Your task to perform on an android device: What's the weather going to be this weekend? Image 0: 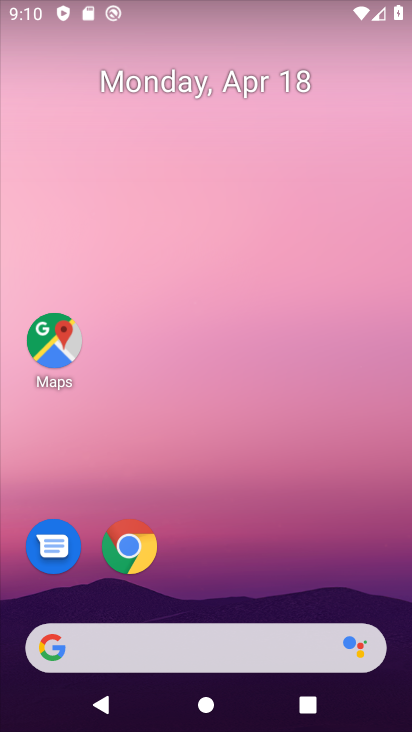
Step 0: drag from (26, 188) to (411, 209)
Your task to perform on an android device: What's the weather going to be this weekend? Image 1: 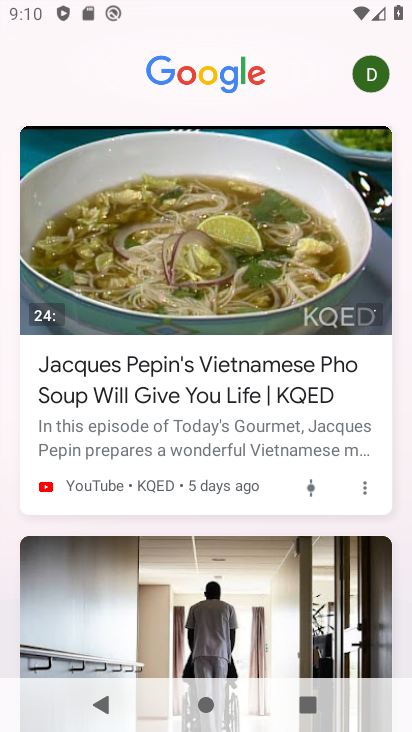
Step 1: drag from (400, 446) to (10, 452)
Your task to perform on an android device: What's the weather going to be this weekend? Image 2: 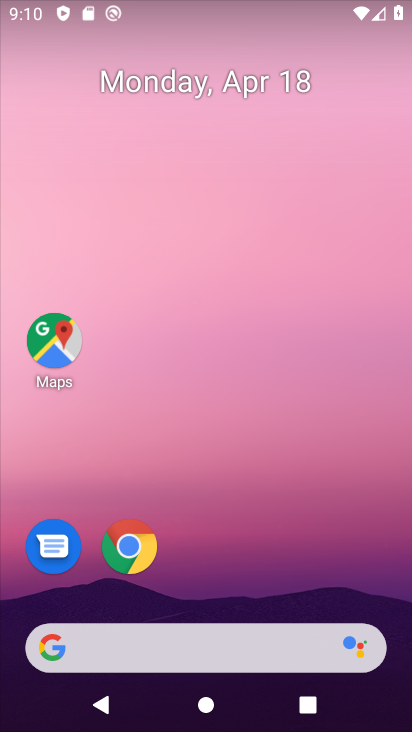
Step 2: click (147, 542)
Your task to perform on an android device: What's the weather going to be this weekend? Image 3: 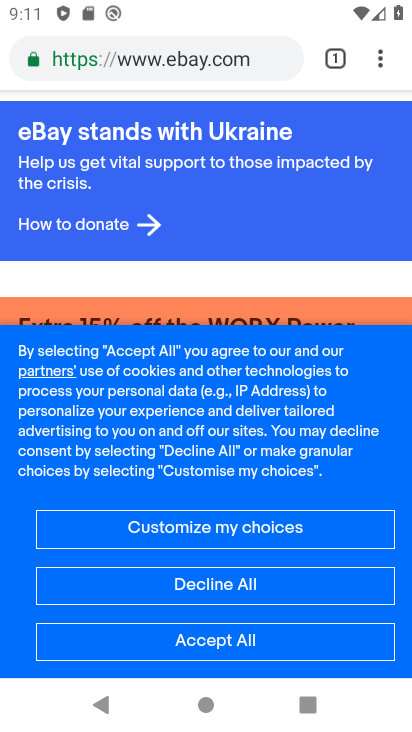
Step 3: click (193, 47)
Your task to perform on an android device: What's the weather going to be this weekend? Image 4: 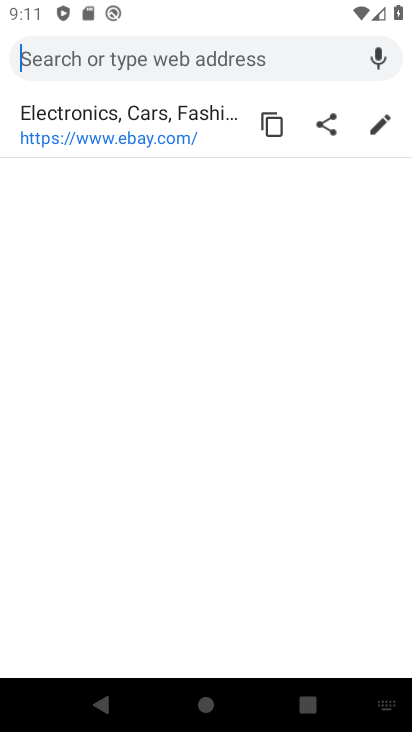
Step 4: type "weather this weekend"
Your task to perform on an android device: What's the weather going to be this weekend? Image 5: 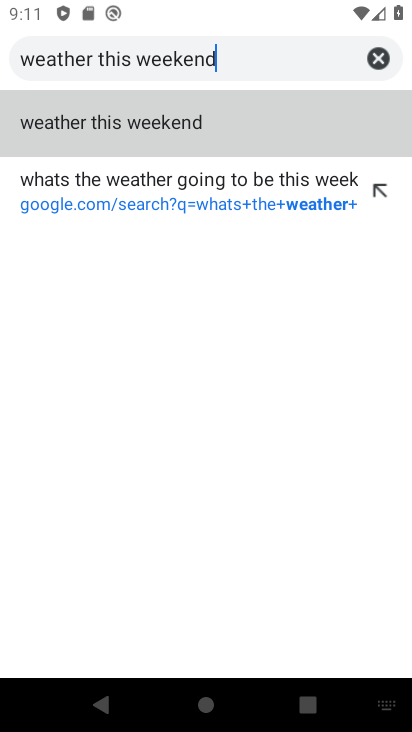
Step 5: click (199, 127)
Your task to perform on an android device: What's the weather going to be this weekend? Image 6: 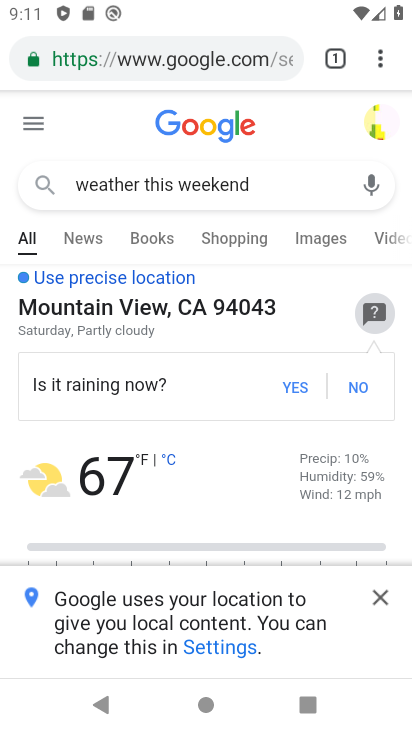
Step 6: task complete